Your task to perform on an android device: Open the phone app and click the voicemail tab. Image 0: 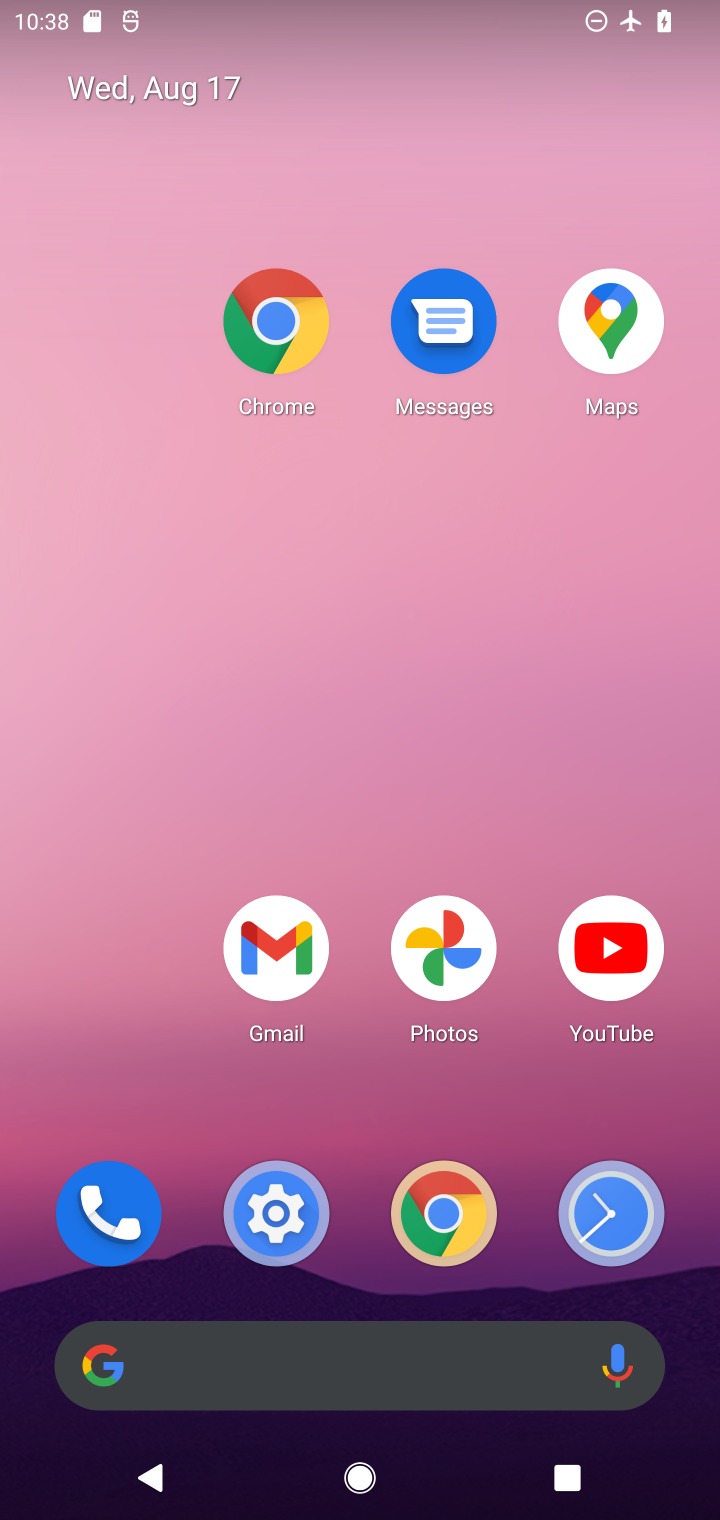
Step 0: click (127, 1219)
Your task to perform on an android device: Open the phone app and click the voicemail tab. Image 1: 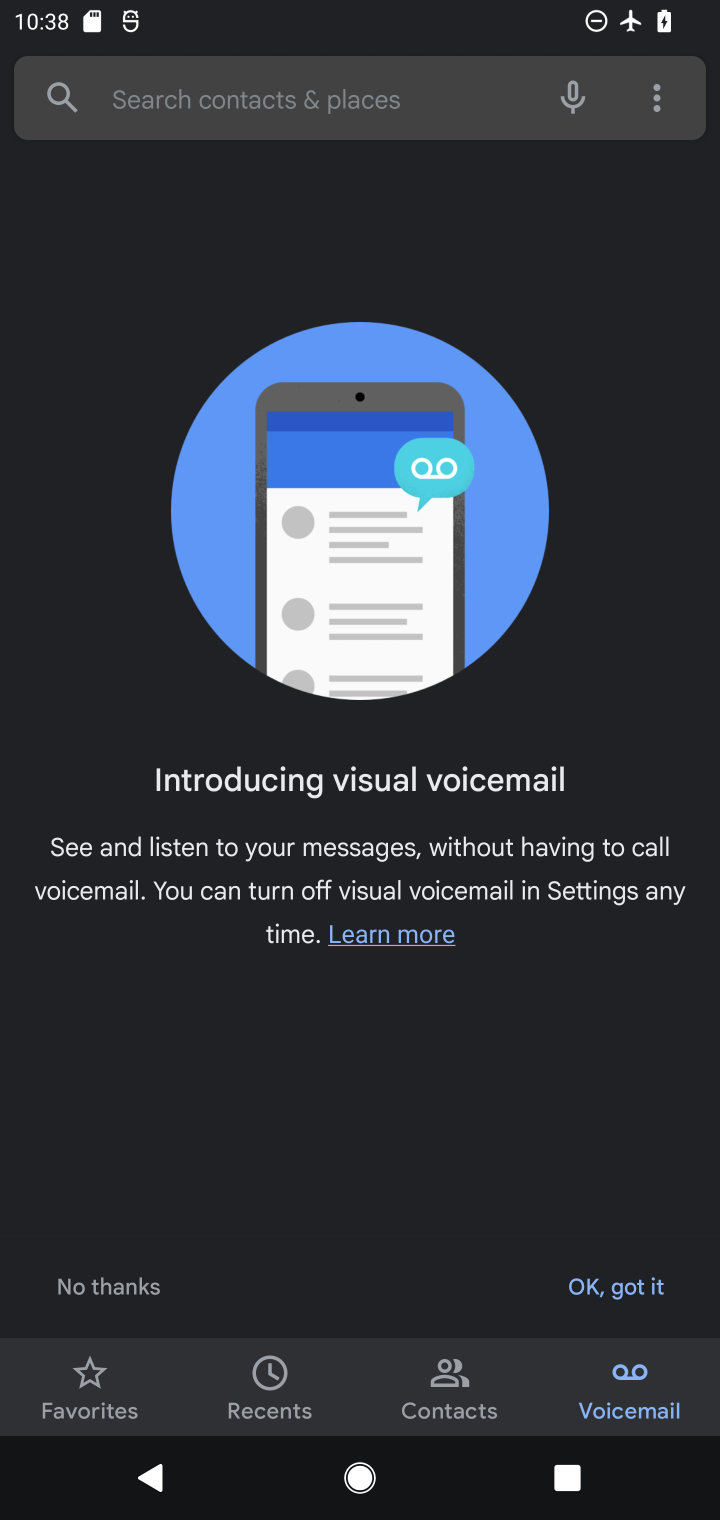
Step 1: task complete